Your task to perform on an android device: open a bookmark in the chrome app Image 0: 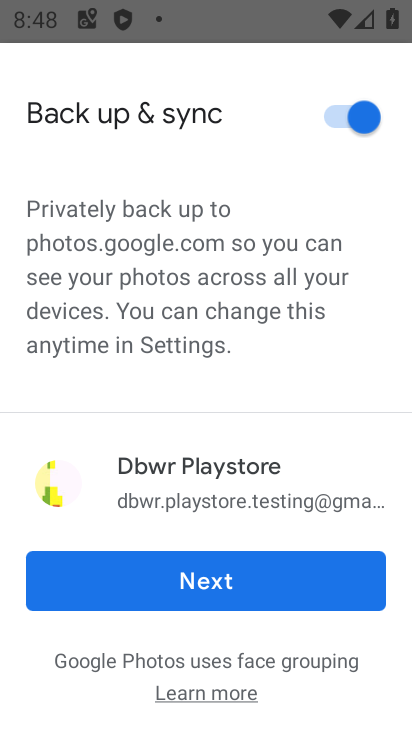
Step 0: click (282, 584)
Your task to perform on an android device: open a bookmark in the chrome app Image 1: 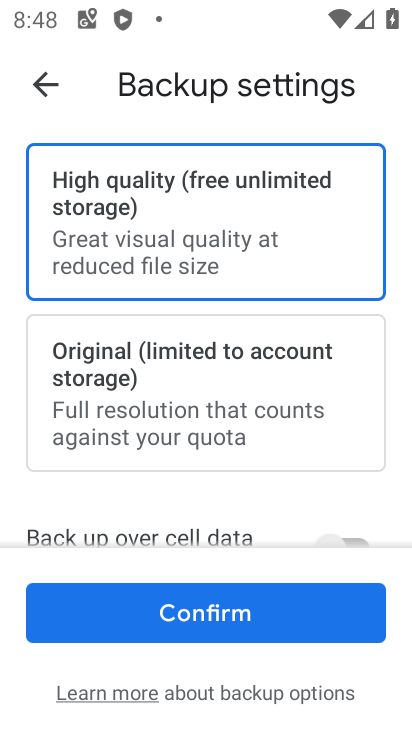
Step 1: click (282, 584)
Your task to perform on an android device: open a bookmark in the chrome app Image 2: 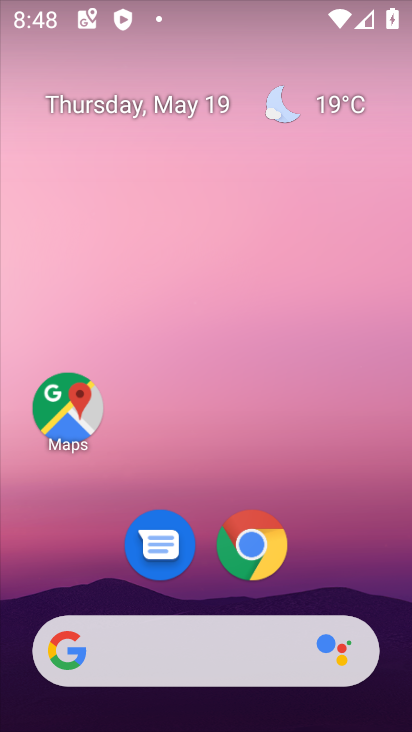
Step 2: click (268, 545)
Your task to perform on an android device: open a bookmark in the chrome app Image 3: 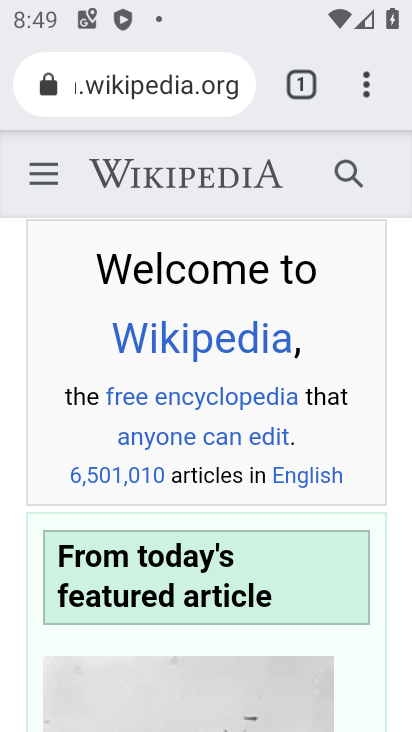
Step 3: click (376, 95)
Your task to perform on an android device: open a bookmark in the chrome app Image 4: 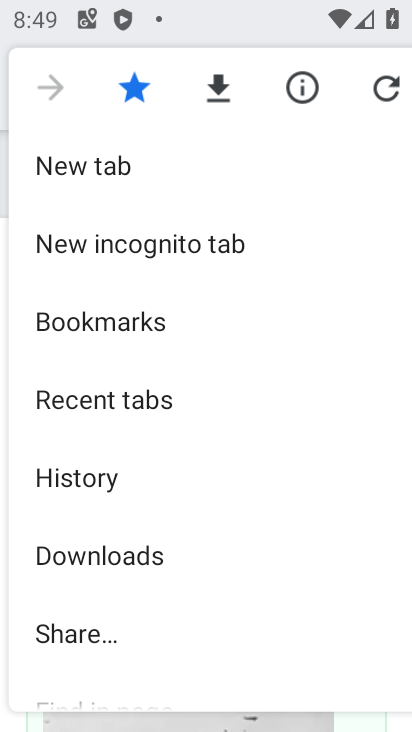
Step 4: click (178, 296)
Your task to perform on an android device: open a bookmark in the chrome app Image 5: 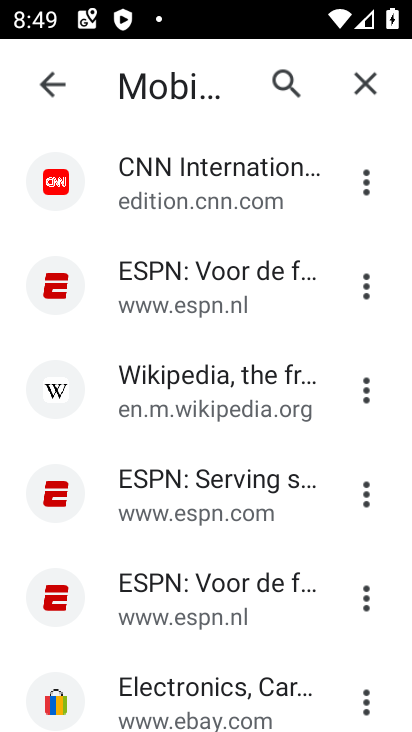
Step 5: click (254, 185)
Your task to perform on an android device: open a bookmark in the chrome app Image 6: 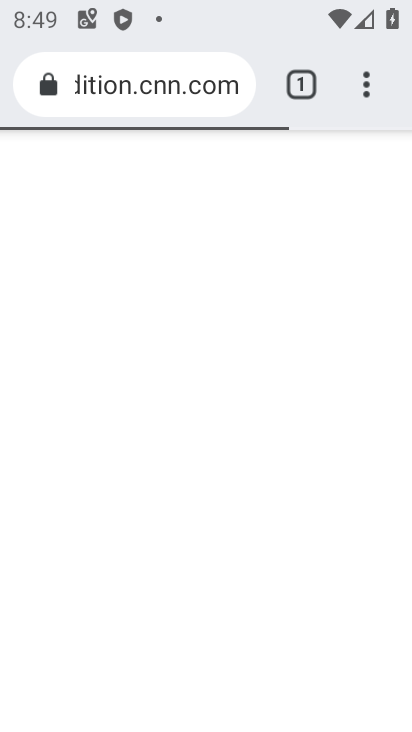
Step 6: task complete